Your task to perform on an android device: delete location history Image 0: 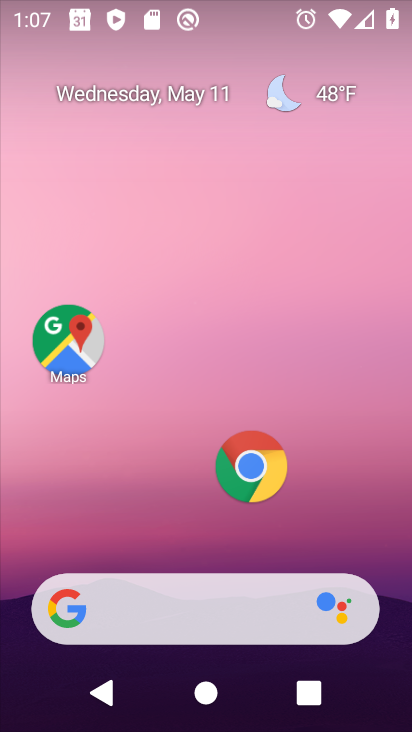
Step 0: click (61, 336)
Your task to perform on an android device: delete location history Image 1: 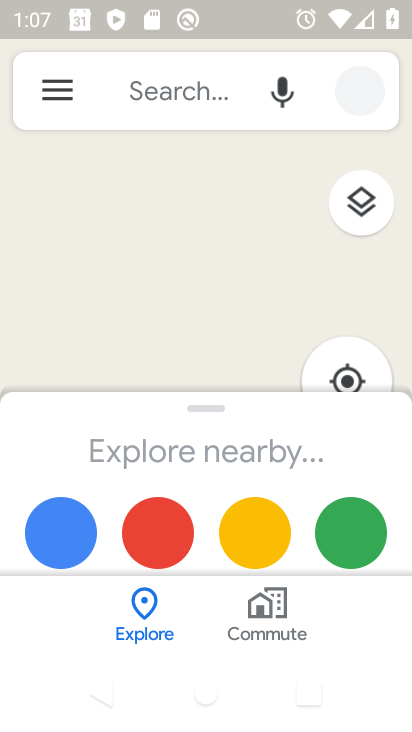
Step 1: click (51, 89)
Your task to perform on an android device: delete location history Image 2: 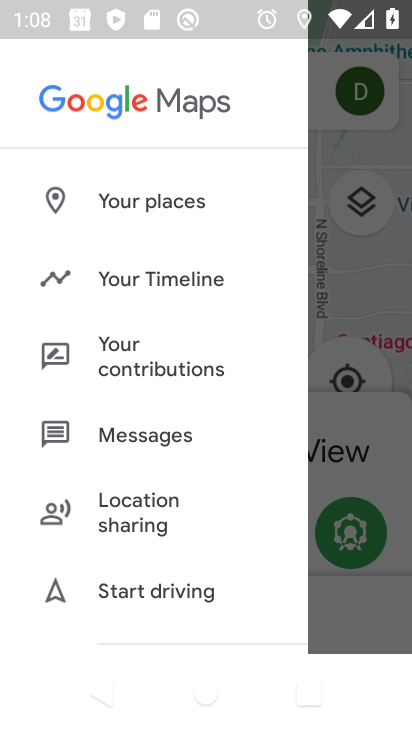
Step 2: click (137, 292)
Your task to perform on an android device: delete location history Image 3: 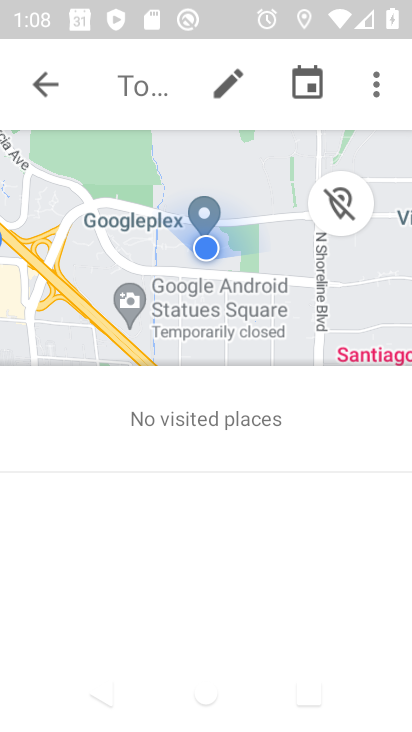
Step 3: click (381, 81)
Your task to perform on an android device: delete location history Image 4: 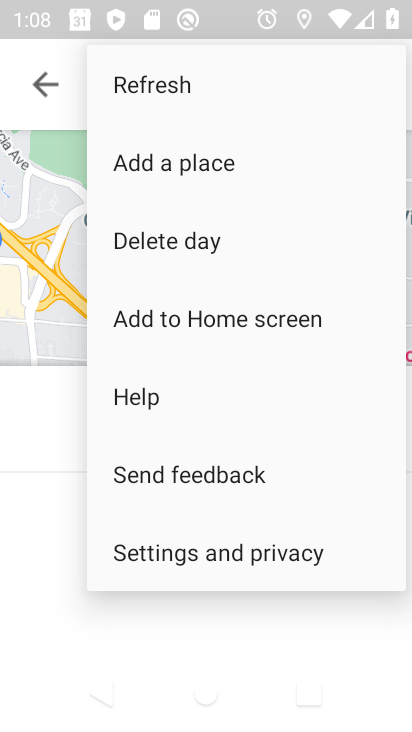
Step 4: click (193, 575)
Your task to perform on an android device: delete location history Image 5: 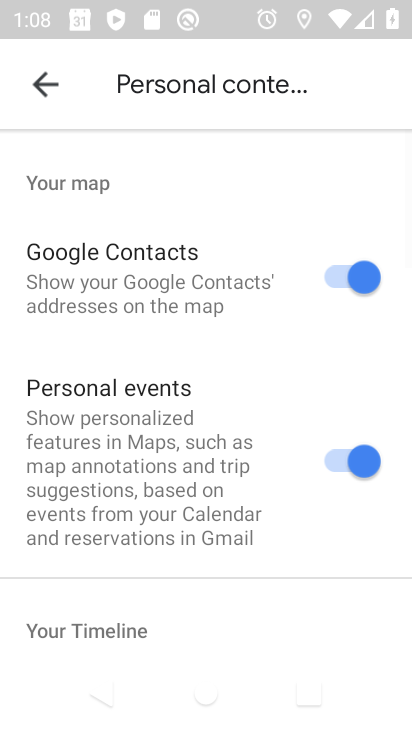
Step 5: drag from (177, 572) to (265, 81)
Your task to perform on an android device: delete location history Image 6: 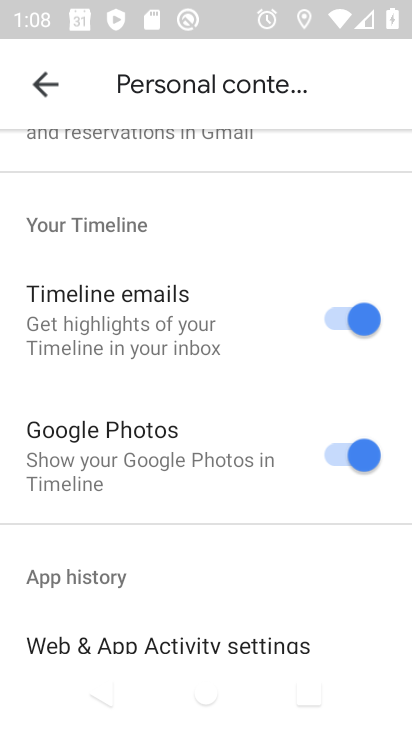
Step 6: drag from (151, 607) to (313, 33)
Your task to perform on an android device: delete location history Image 7: 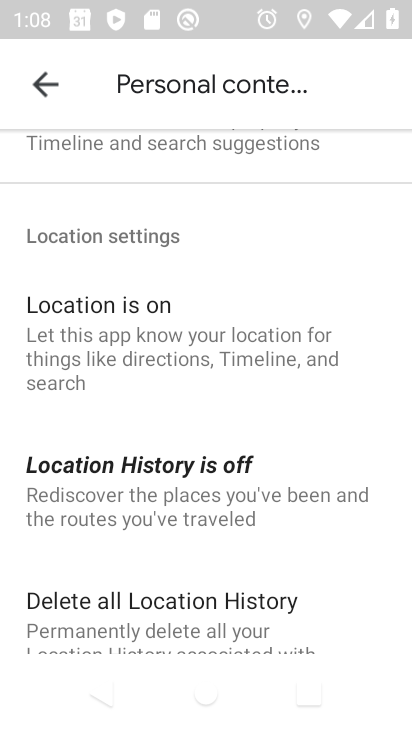
Step 7: click (151, 623)
Your task to perform on an android device: delete location history Image 8: 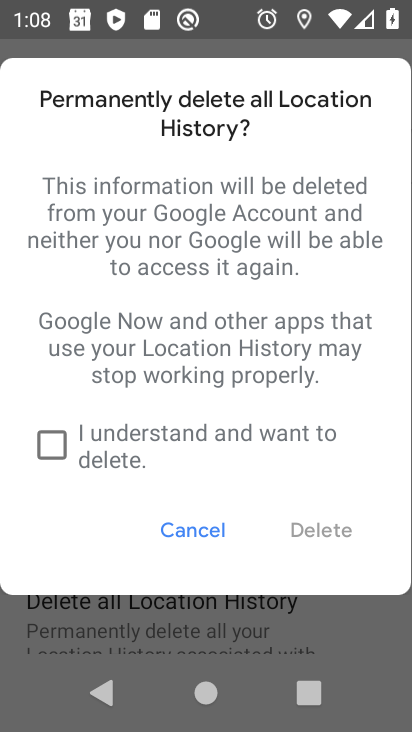
Step 8: click (55, 442)
Your task to perform on an android device: delete location history Image 9: 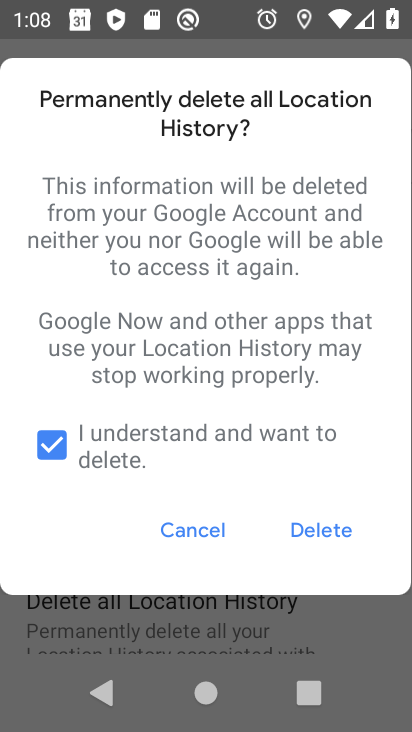
Step 9: click (302, 538)
Your task to perform on an android device: delete location history Image 10: 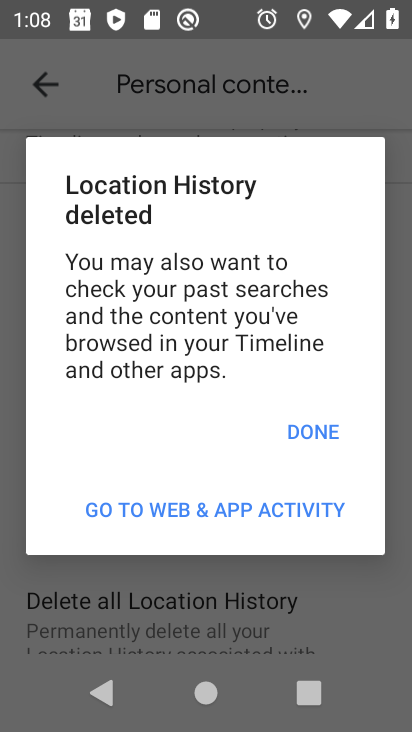
Step 10: task complete